Your task to perform on an android device: set an alarm Image 0: 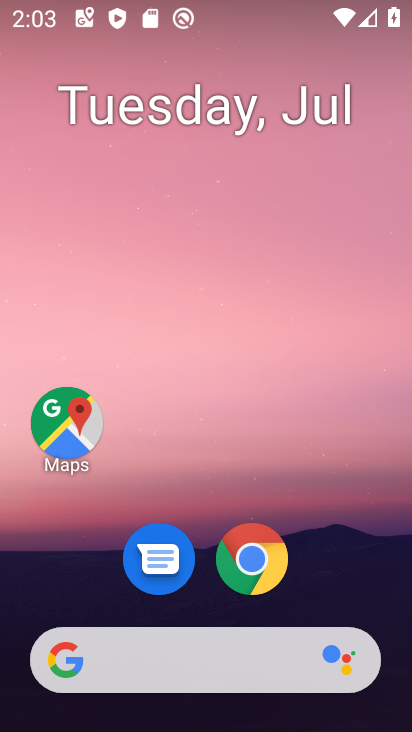
Step 0: press home button
Your task to perform on an android device: set an alarm Image 1: 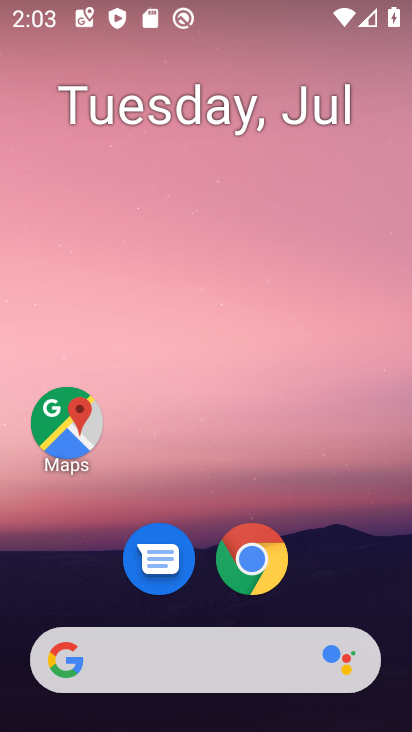
Step 1: drag from (374, 569) to (366, 115)
Your task to perform on an android device: set an alarm Image 2: 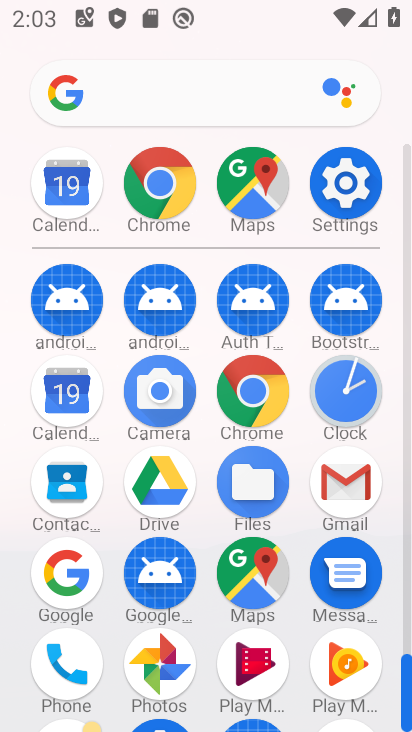
Step 2: click (357, 392)
Your task to perform on an android device: set an alarm Image 3: 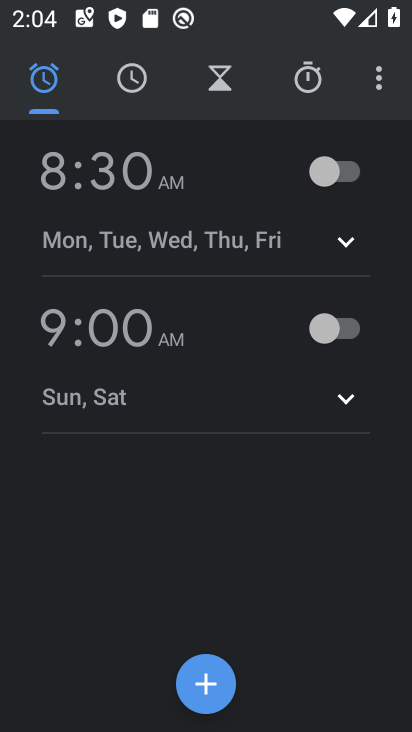
Step 3: click (206, 681)
Your task to perform on an android device: set an alarm Image 4: 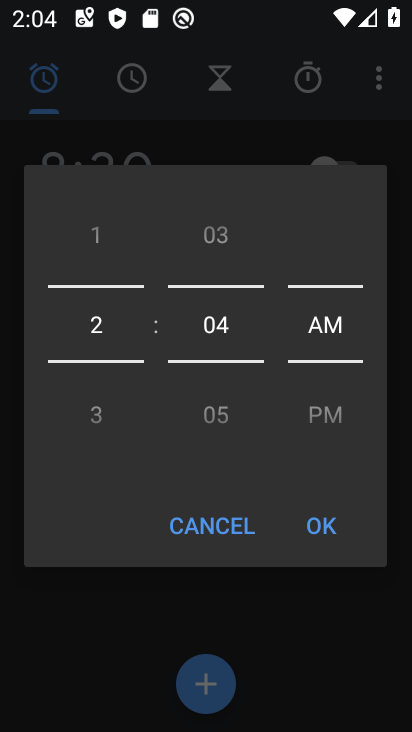
Step 4: click (321, 530)
Your task to perform on an android device: set an alarm Image 5: 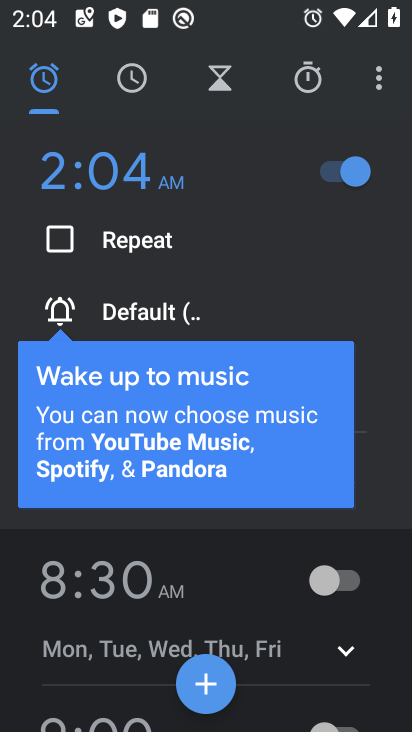
Step 5: task complete